Your task to perform on an android device: Open wifi settings Image 0: 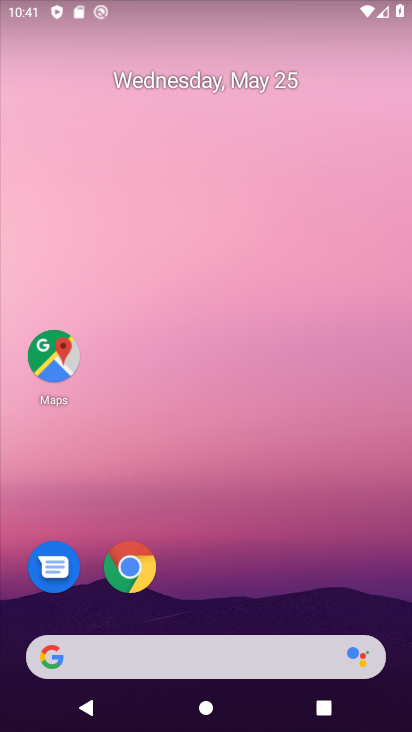
Step 0: drag from (200, 610) to (254, 81)
Your task to perform on an android device: Open wifi settings Image 1: 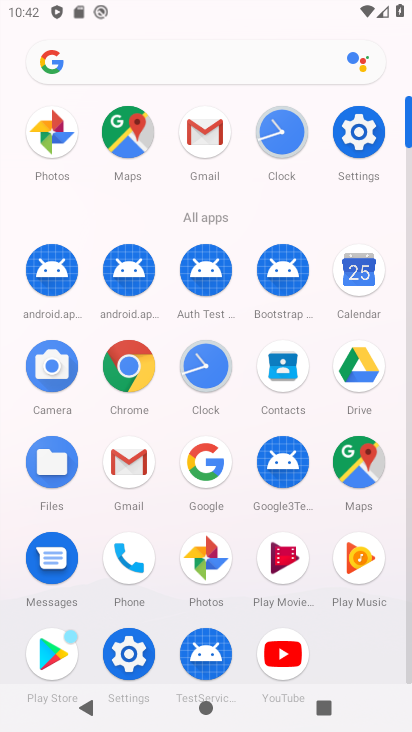
Step 1: click (360, 133)
Your task to perform on an android device: Open wifi settings Image 2: 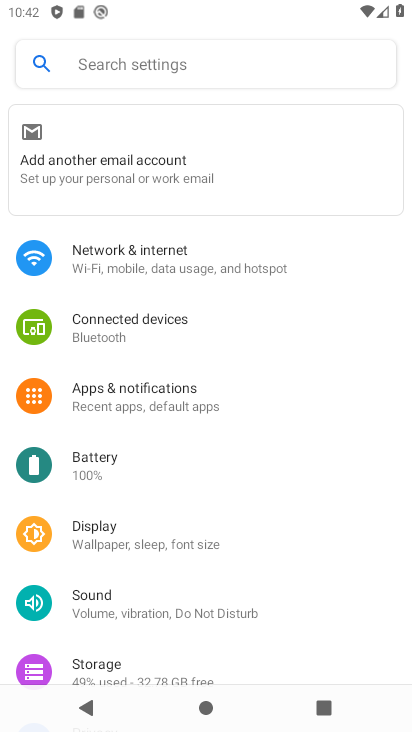
Step 2: click (192, 261)
Your task to perform on an android device: Open wifi settings Image 3: 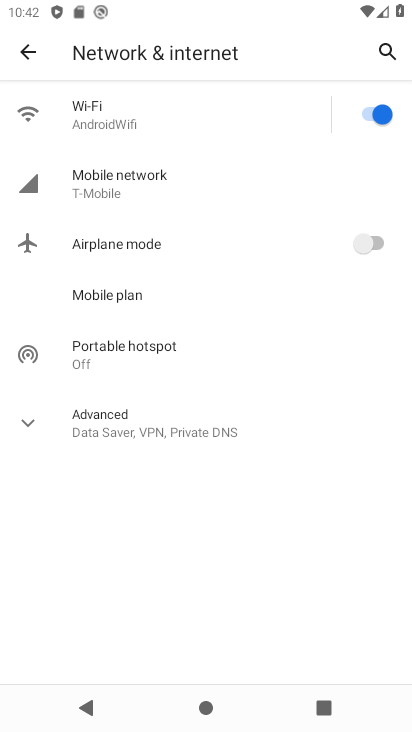
Step 3: click (146, 122)
Your task to perform on an android device: Open wifi settings Image 4: 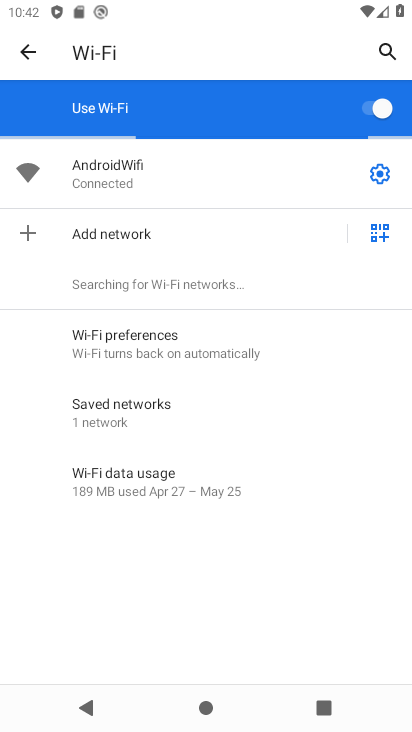
Step 4: task complete